Your task to perform on an android device: open app "Airtel Thanks" (install if not already installed) Image 0: 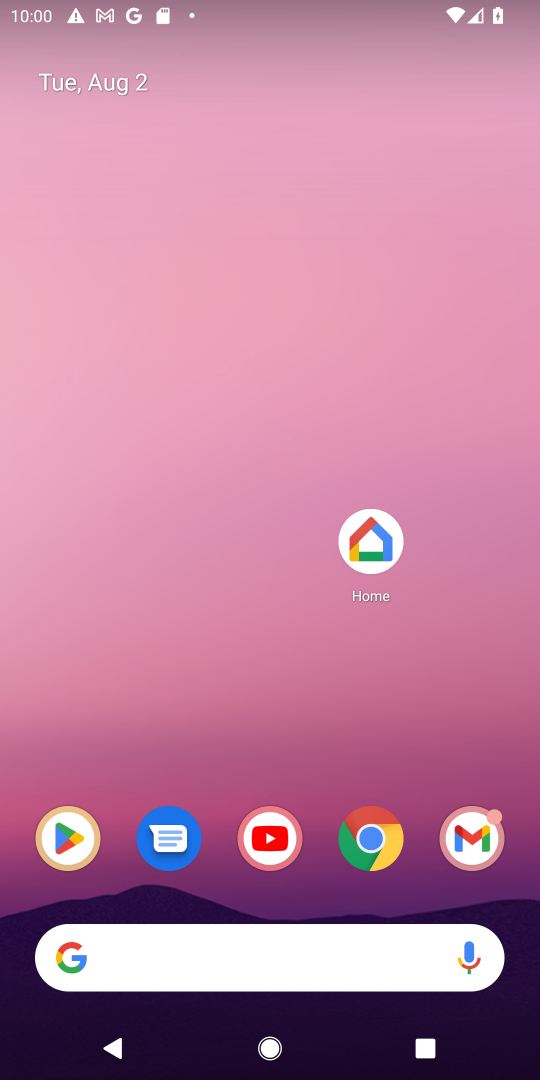
Step 0: press home button
Your task to perform on an android device: open app "Airtel Thanks" (install if not already installed) Image 1: 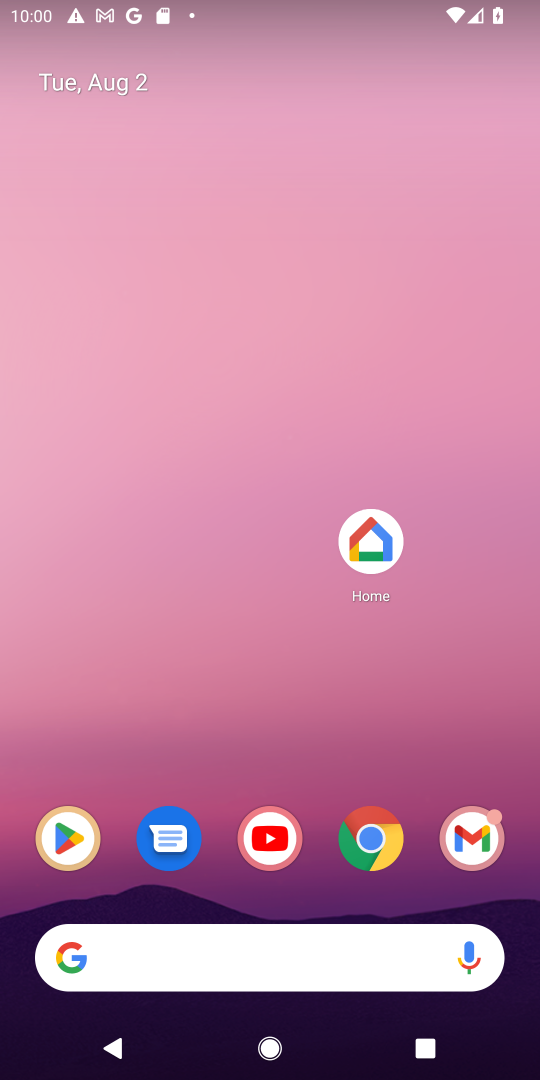
Step 1: drag from (208, 753) to (224, 60)
Your task to perform on an android device: open app "Airtel Thanks" (install if not already installed) Image 2: 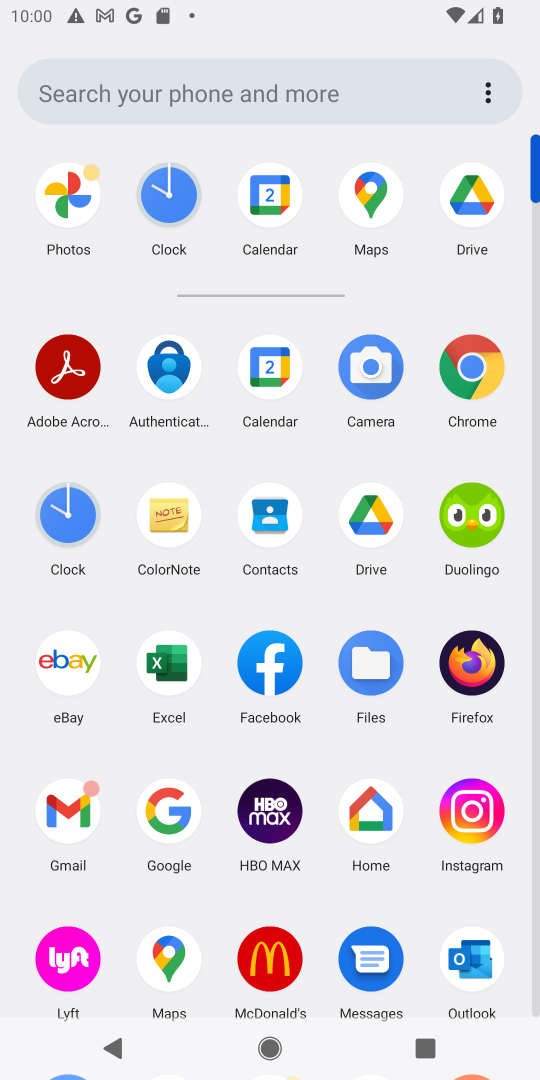
Step 2: drag from (316, 895) to (323, 487)
Your task to perform on an android device: open app "Airtel Thanks" (install if not already installed) Image 3: 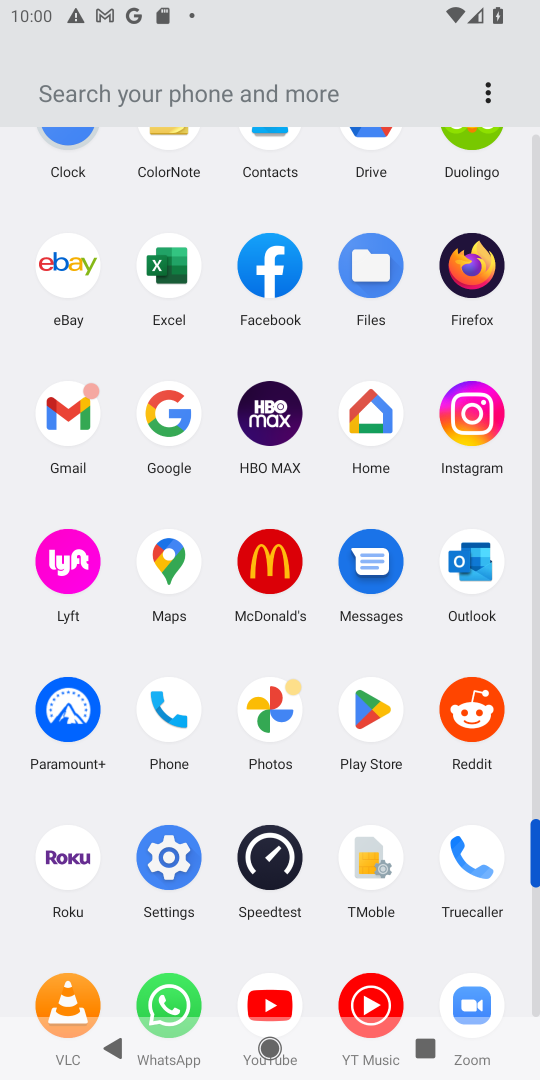
Step 3: click (386, 720)
Your task to perform on an android device: open app "Airtel Thanks" (install if not already installed) Image 4: 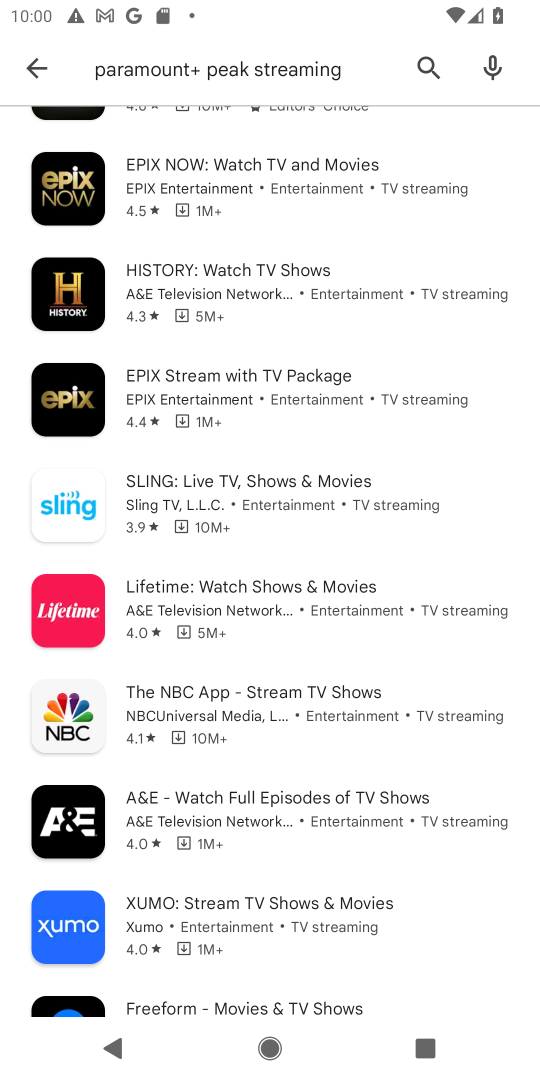
Step 4: click (423, 62)
Your task to perform on an android device: open app "Airtel Thanks" (install if not already installed) Image 5: 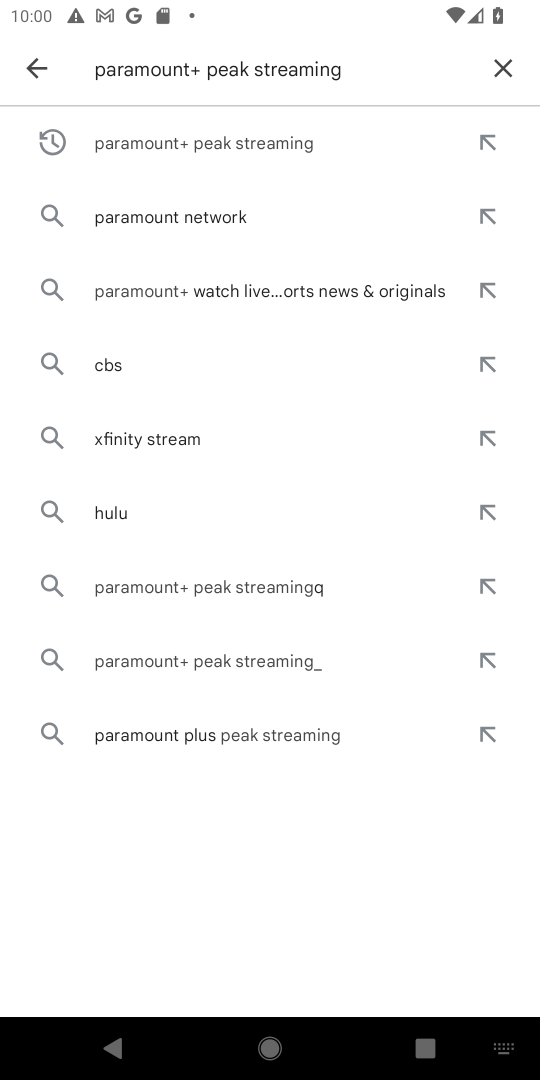
Step 5: click (504, 60)
Your task to perform on an android device: open app "Airtel Thanks" (install if not already installed) Image 6: 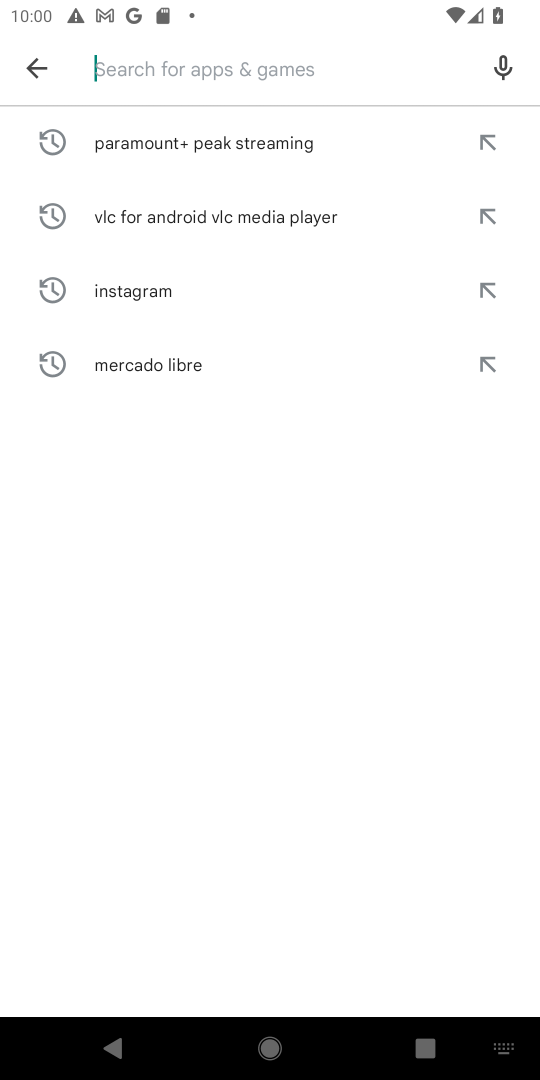
Step 6: click (385, 66)
Your task to perform on an android device: open app "Airtel Thanks" (install if not already installed) Image 7: 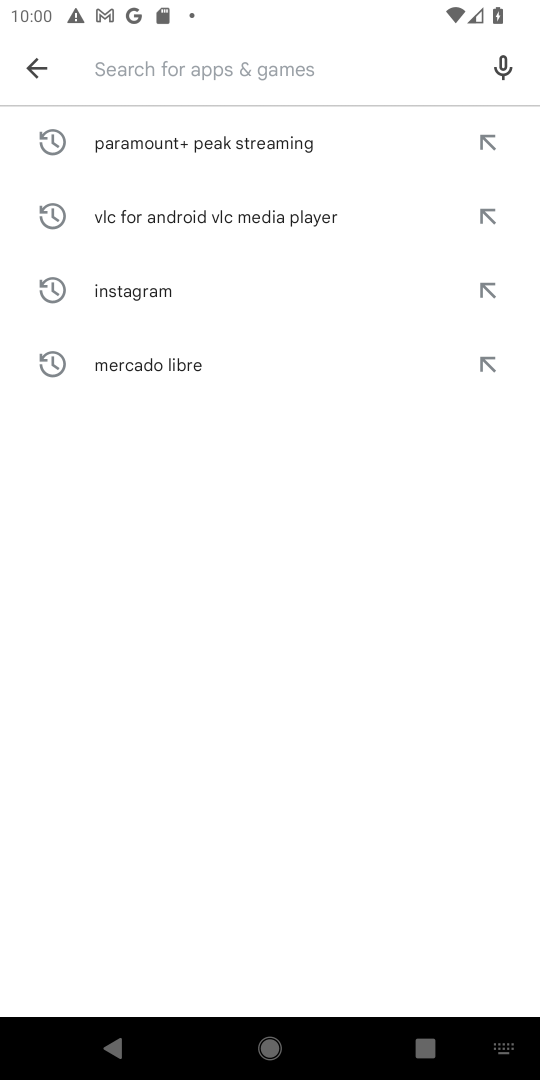
Step 7: type "airtel thanks "
Your task to perform on an android device: open app "Airtel Thanks" (install if not already installed) Image 8: 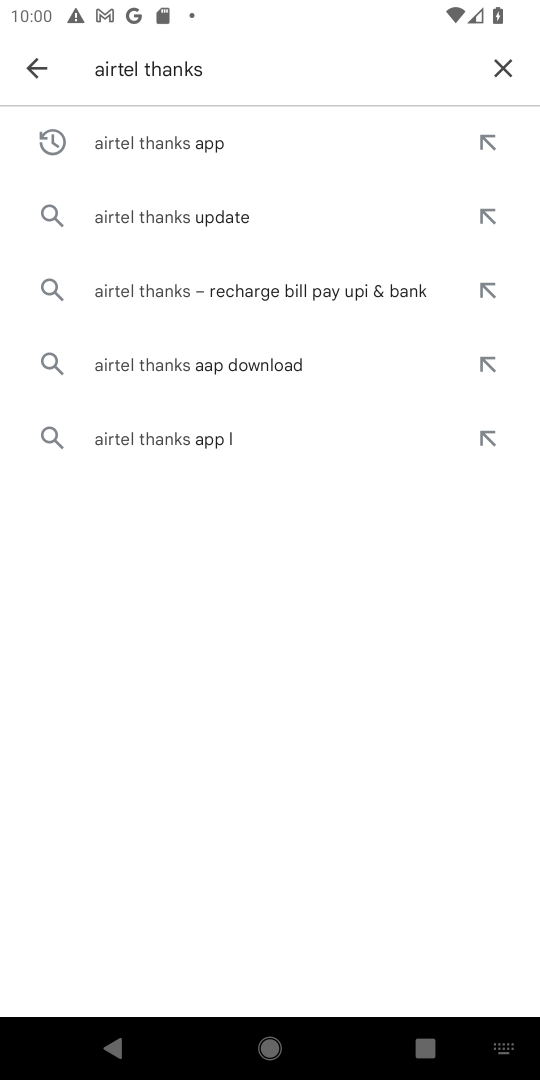
Step 8: click (244, 147)
Your task to perform on an android device: open app "Airtel Thanks" (install if not already installed) Image 9: 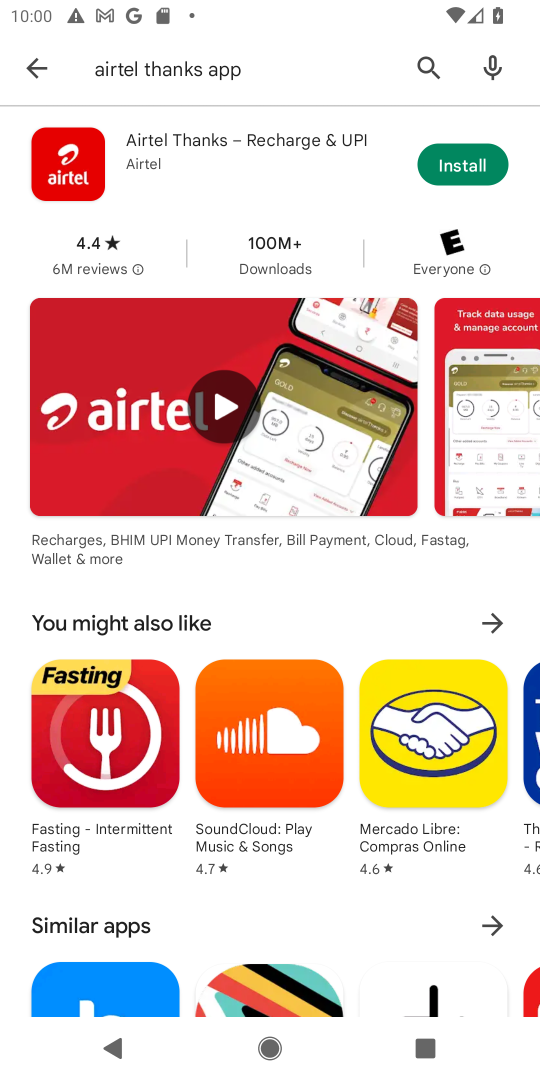
Step 9: click (466, 169)
Your task to perform on an android device: open app "Airtel Thanks" (install if not already installed) Image 10: 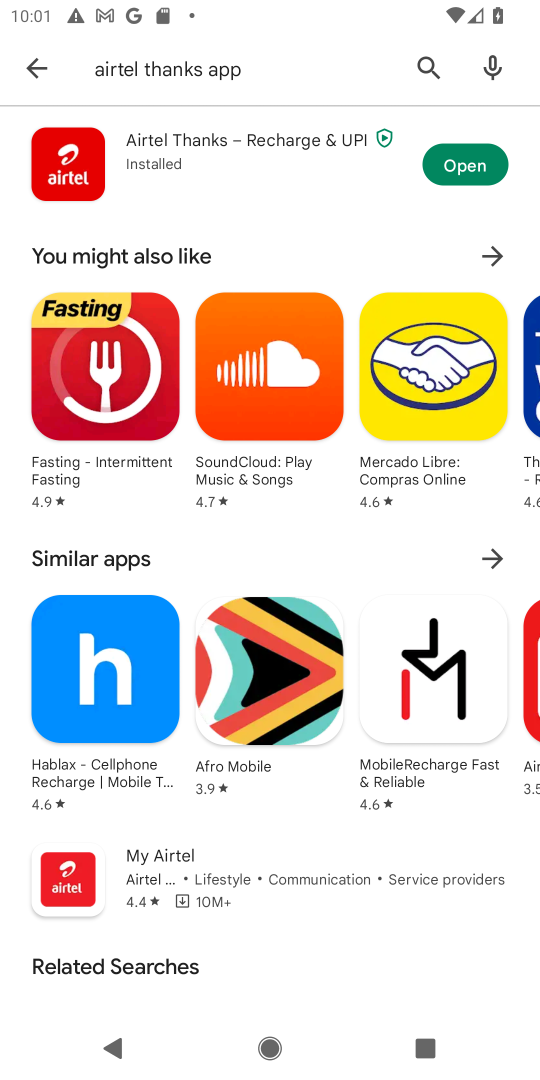
Step 10: click (488, 158)
Your task to perform on an android device: open app "Airtel Thanks" (install if not already installed) Image 11: 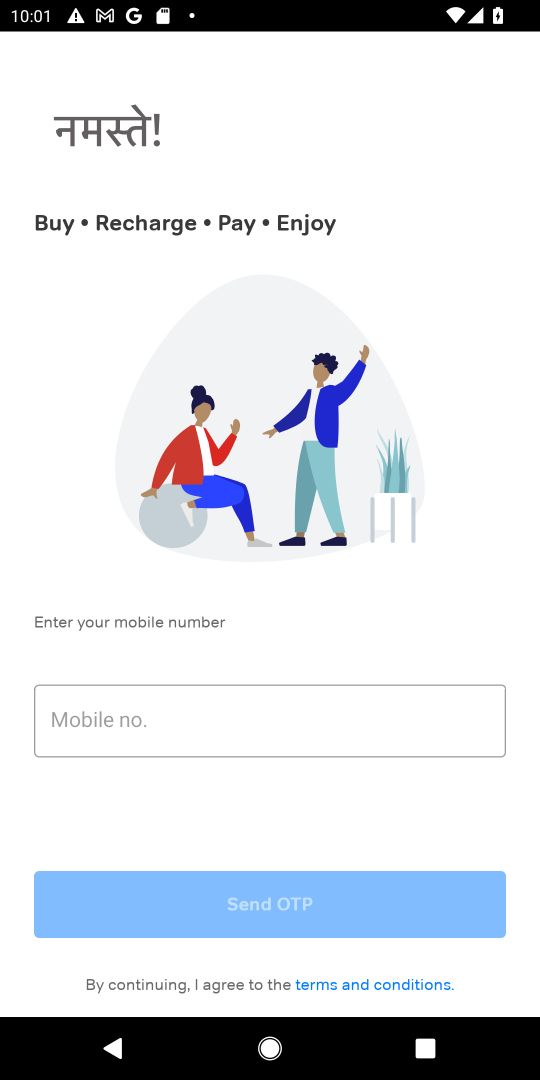
Step 11: task complete